Your task to perform on an android device: Open Chrome and go to settings Image 0: 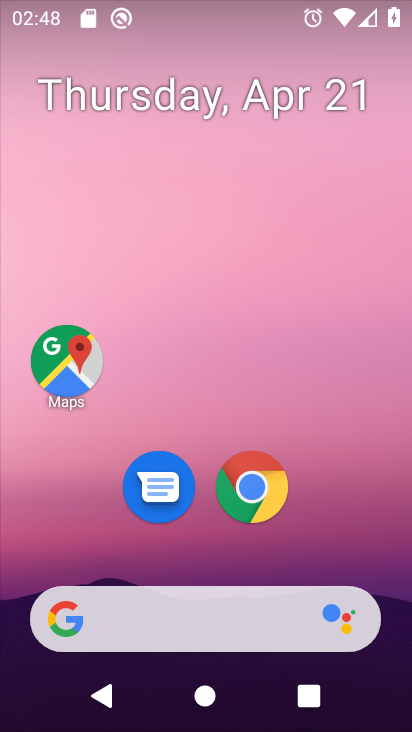
Step 0: drag from (208, 552) to (240, 190)
Your task to perform on an android device: Open Chrome and go to settings Image 1: 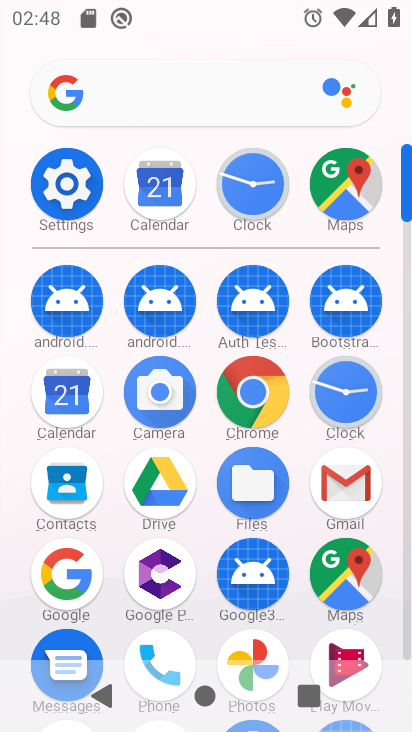
Step 1: click (251, 401)
Your task to perform on an android device: Open Chrome and go to settings Image 2: 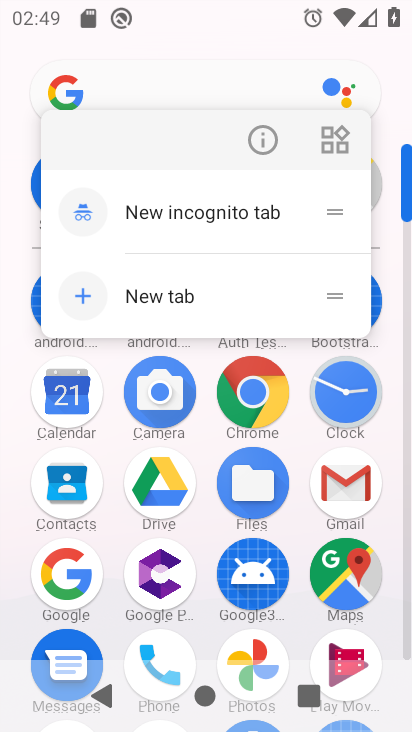
Step 2: click (262, 148)
Your task to perform on an android device: Open Chrome and go to settings Image 3: 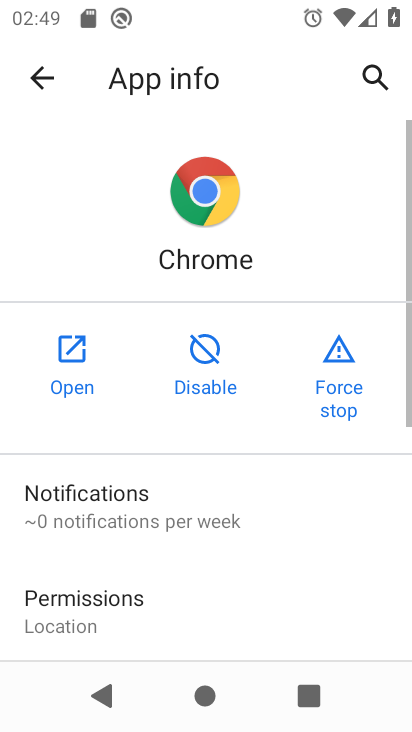
Step 3: click (77, 373)
Your task to perform on an android device: Open Chrome and go to settings Image 4: 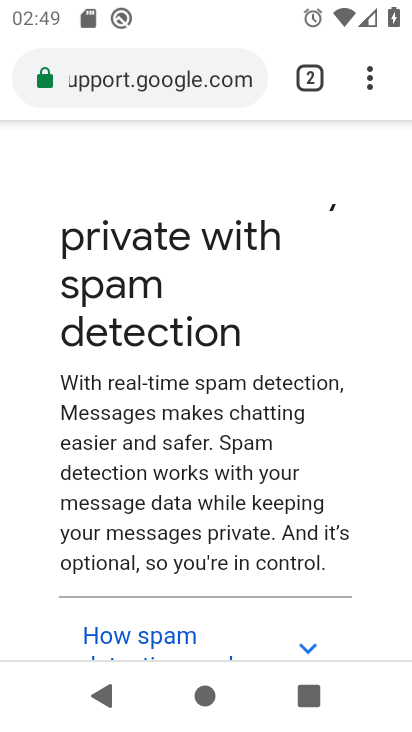
Step 4: task complete